Your task to perform on an android device: What's the price of the LG TV? Image 0: 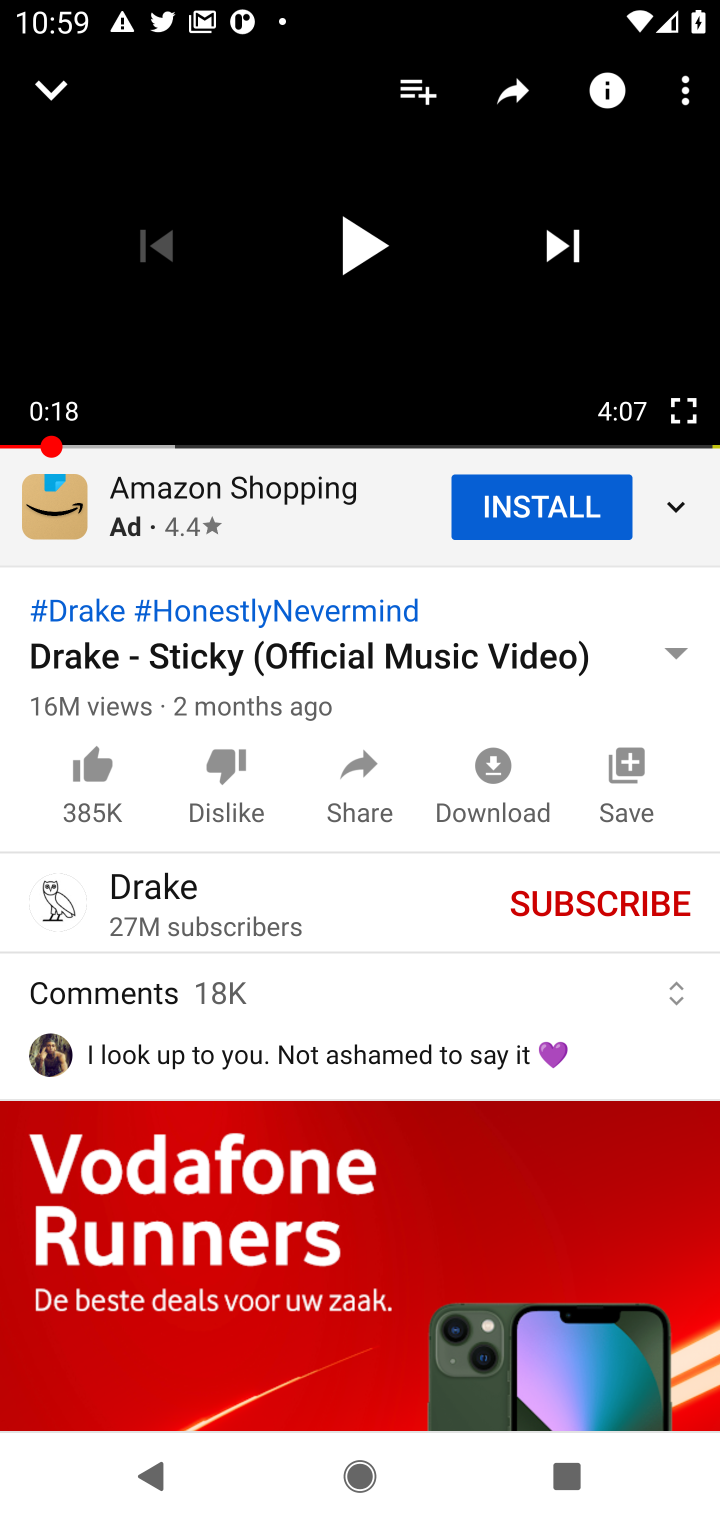
Step 0: press home button
Your task to perform on an android device: What's the price of the LG TV? Image 1: 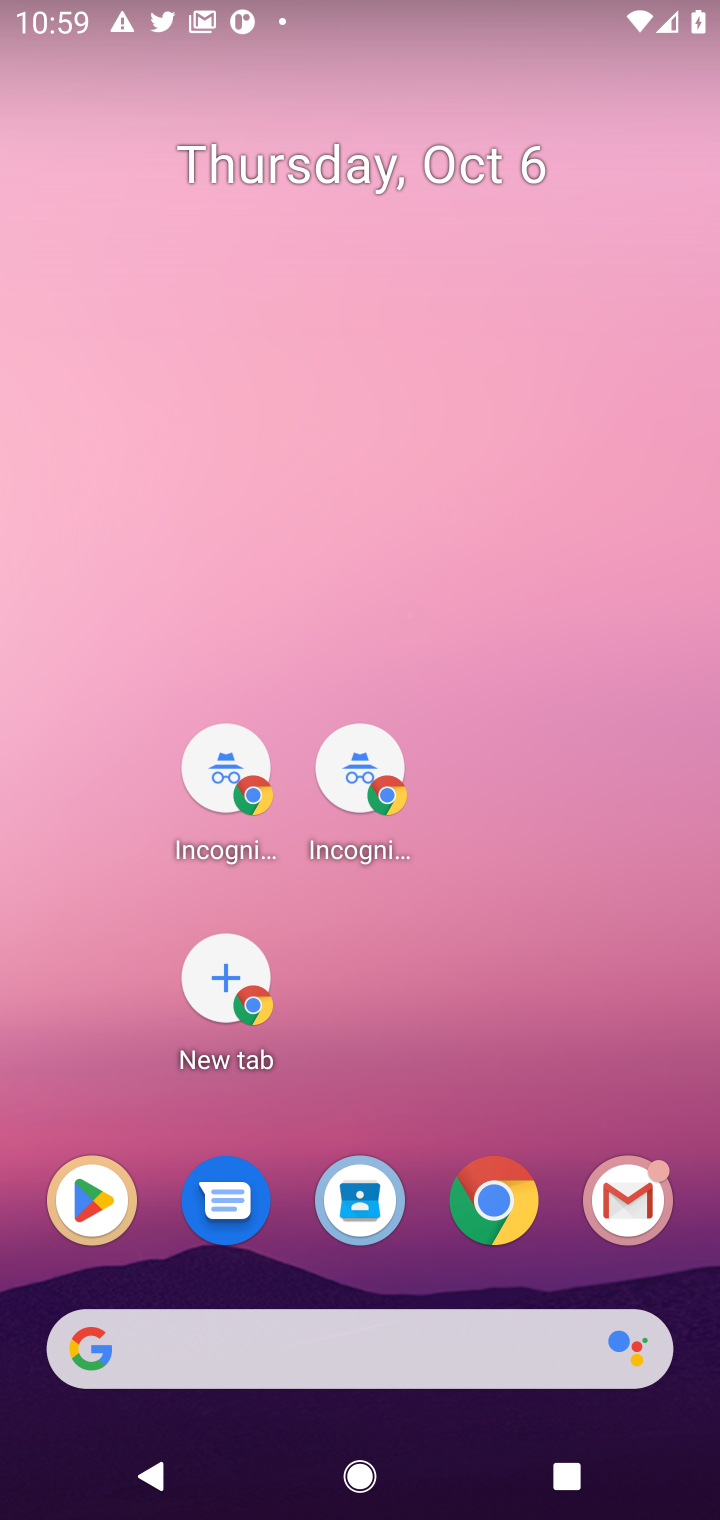
Step 1: click (478, 1202)
Your task to perform on an android device: What's the price of the LG TV? Image 2: 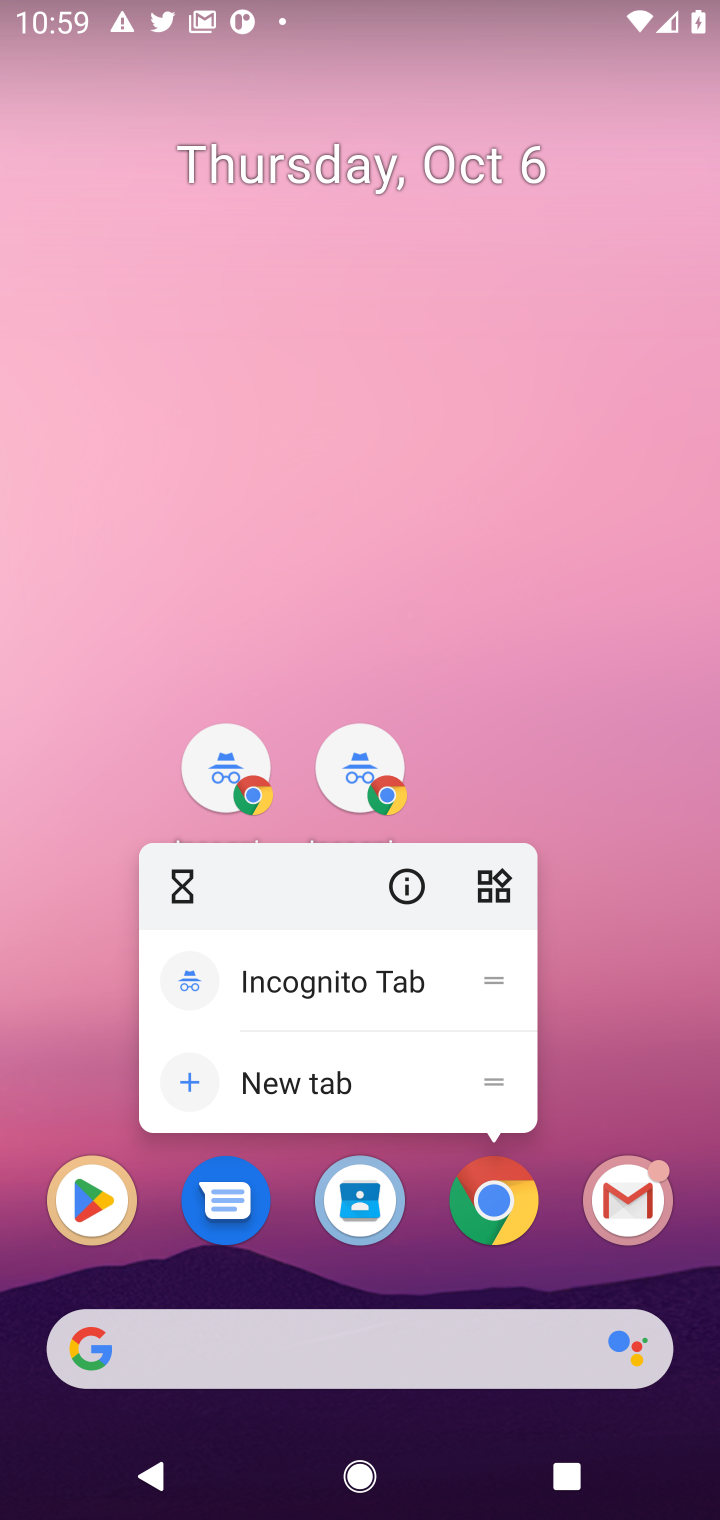
Step 2: press home button
Your task to perform on an android device: What's the price of the LG TV? Image 3: 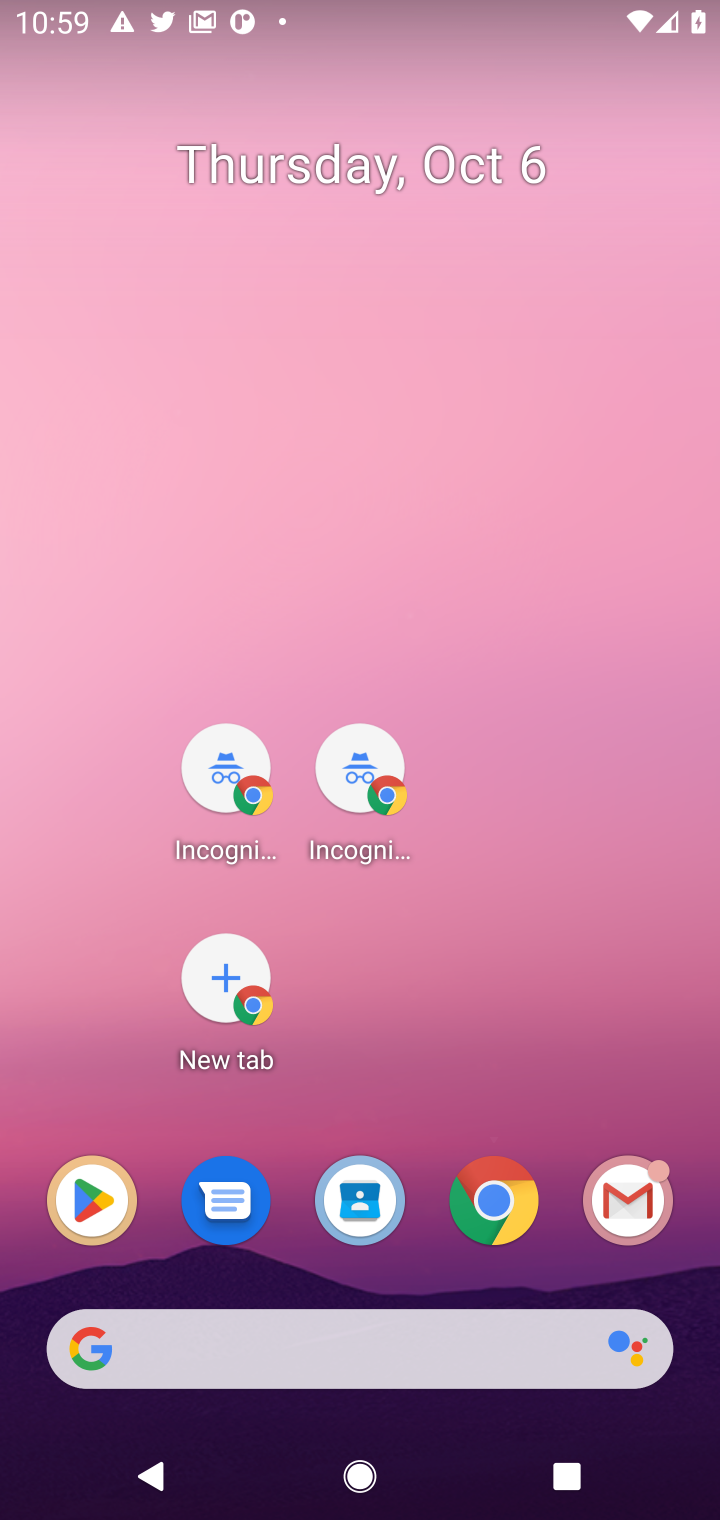
Step 3: press back button
Your task to perform on an android device: What's the price of the LG TV? Image 4: 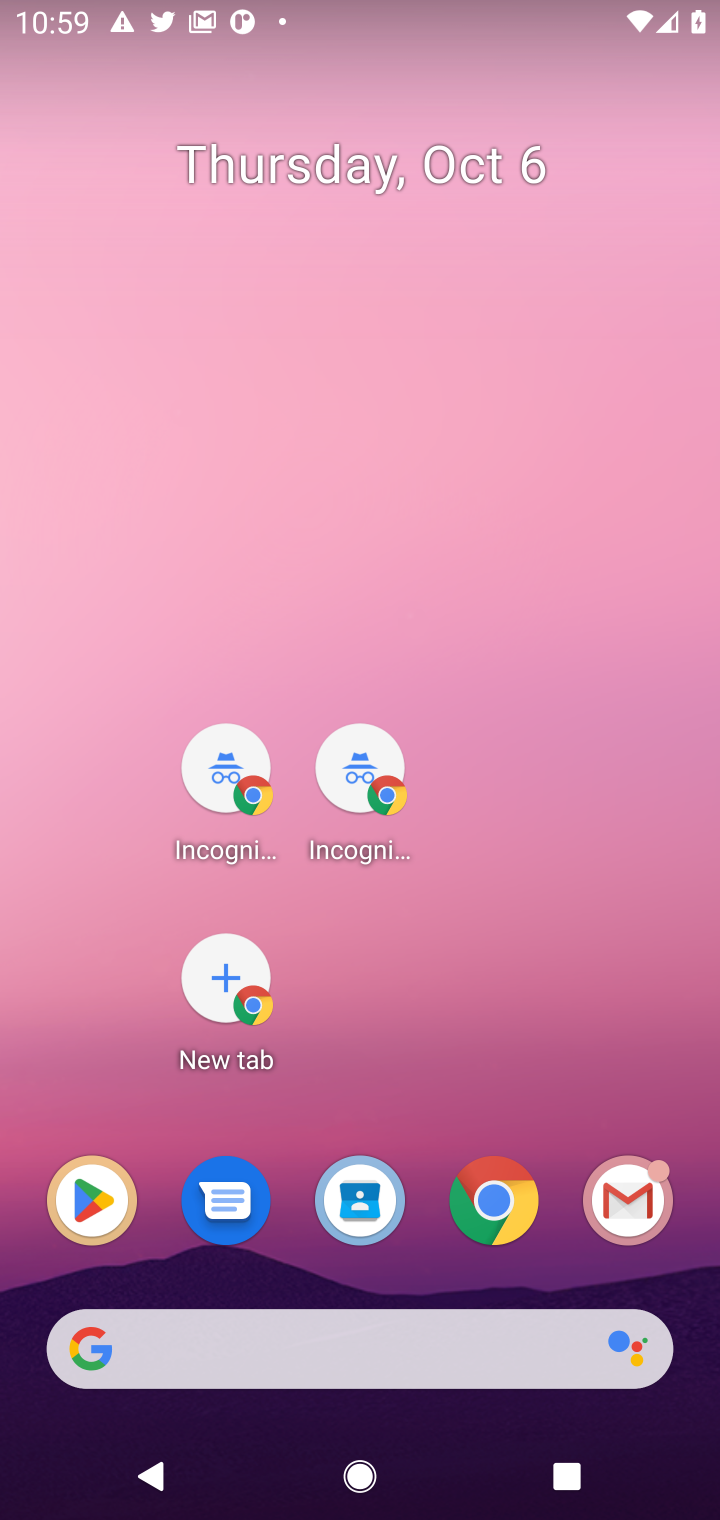
Step 4: press back button
Your task to perform on an android device: What's the price of the LG TV? Image 5: 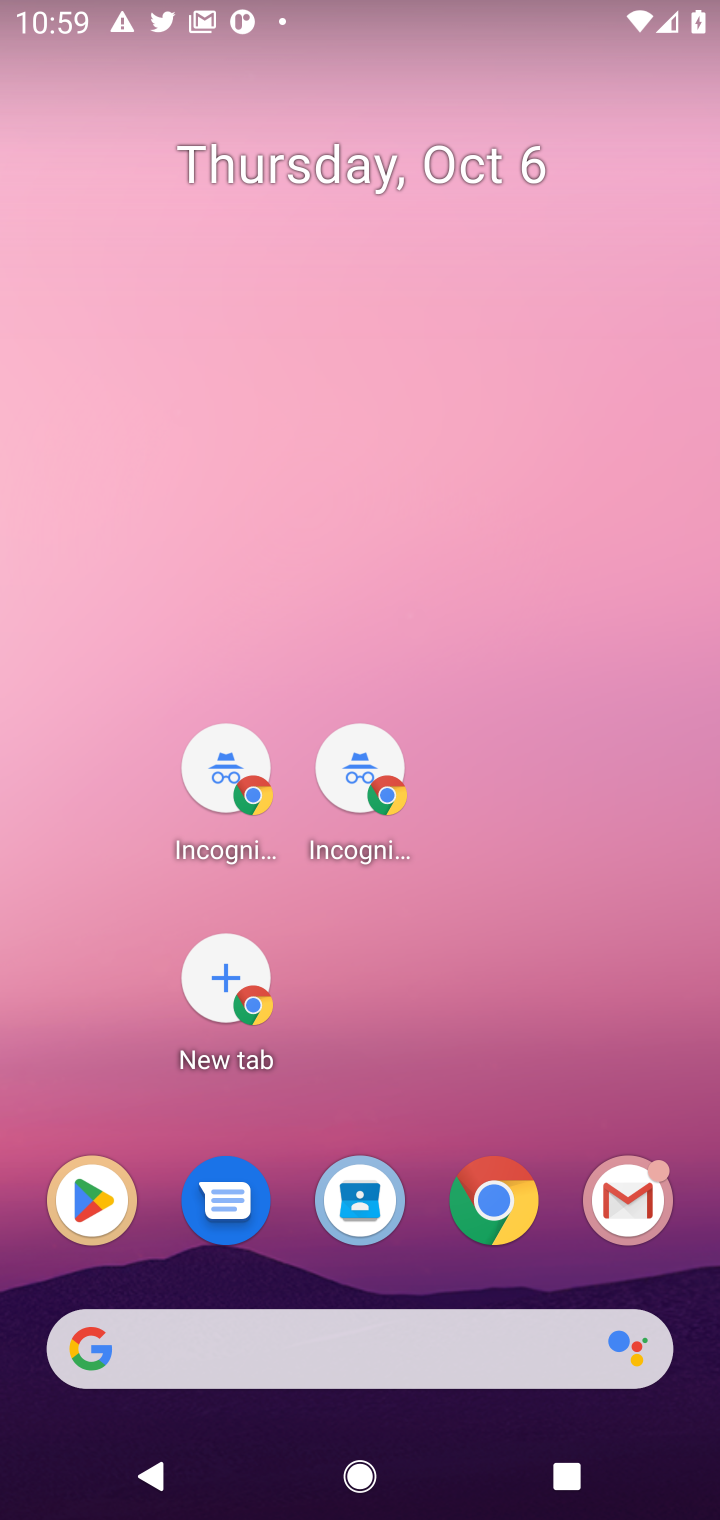
Step 5: click (483, 1228)
Your task to perform on an android device: What's the price of the LG TV? Image 6: 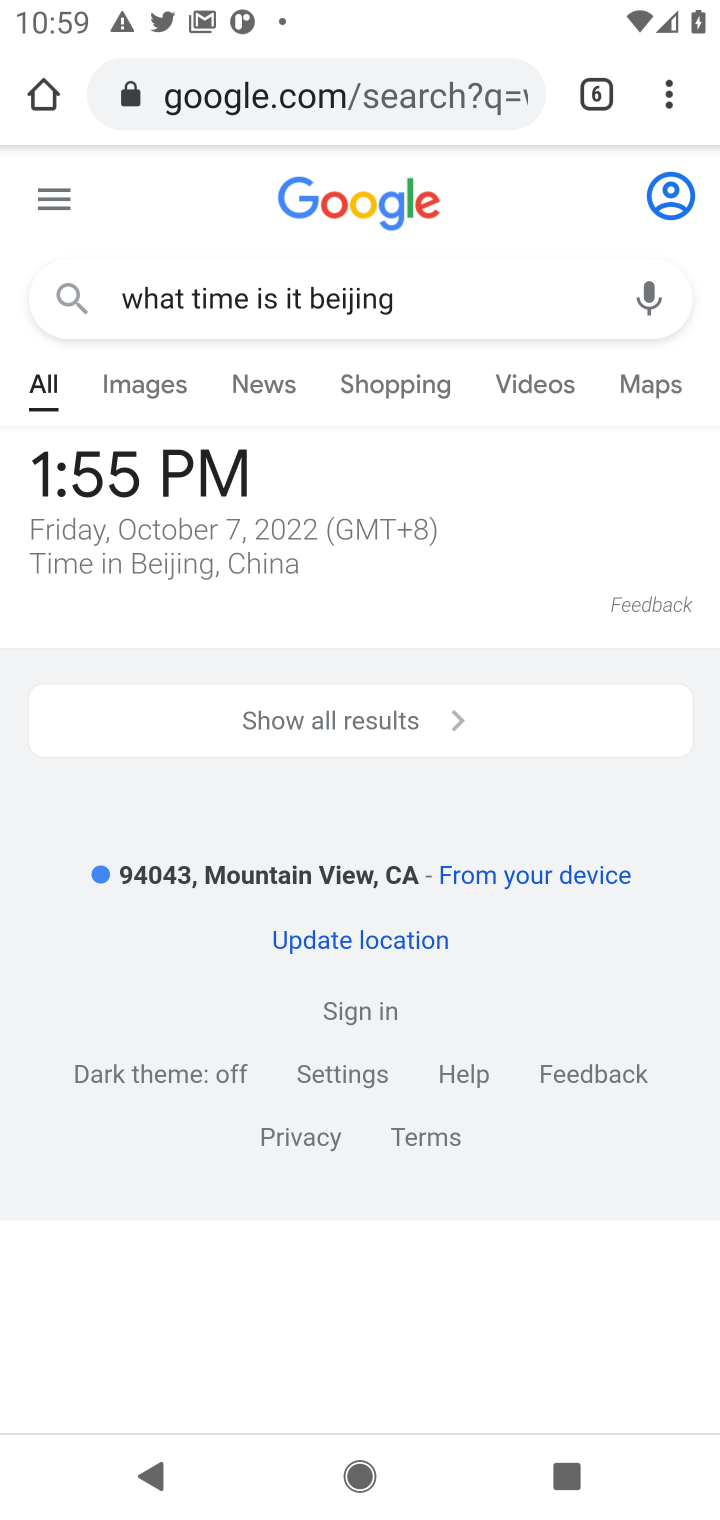
Step 6: click (353, 86)
Your task to perform on an android device: What's the price of the LG TV? Image 7: 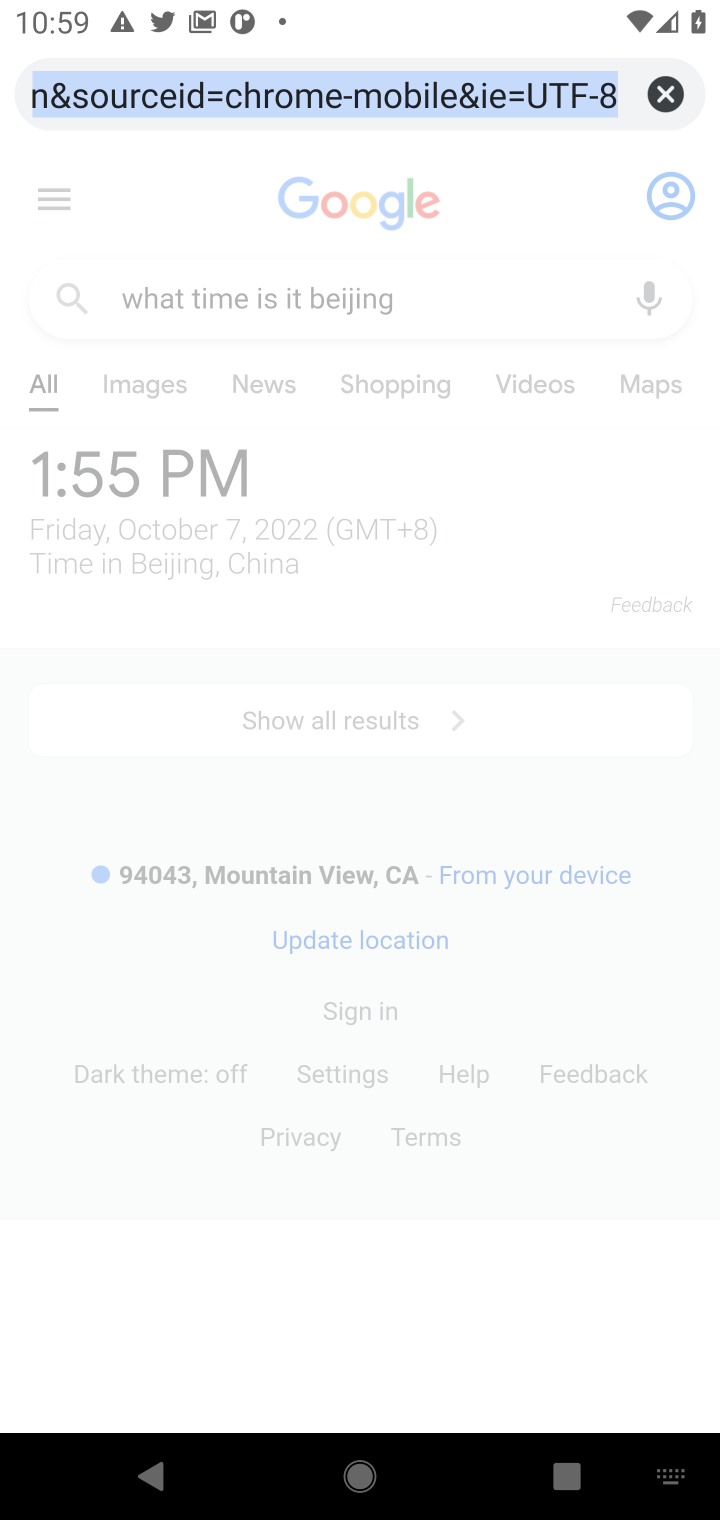
Step 7: click (657, 92)
Your task to perform on an android device: What's the price of the LG TV? Image 8: 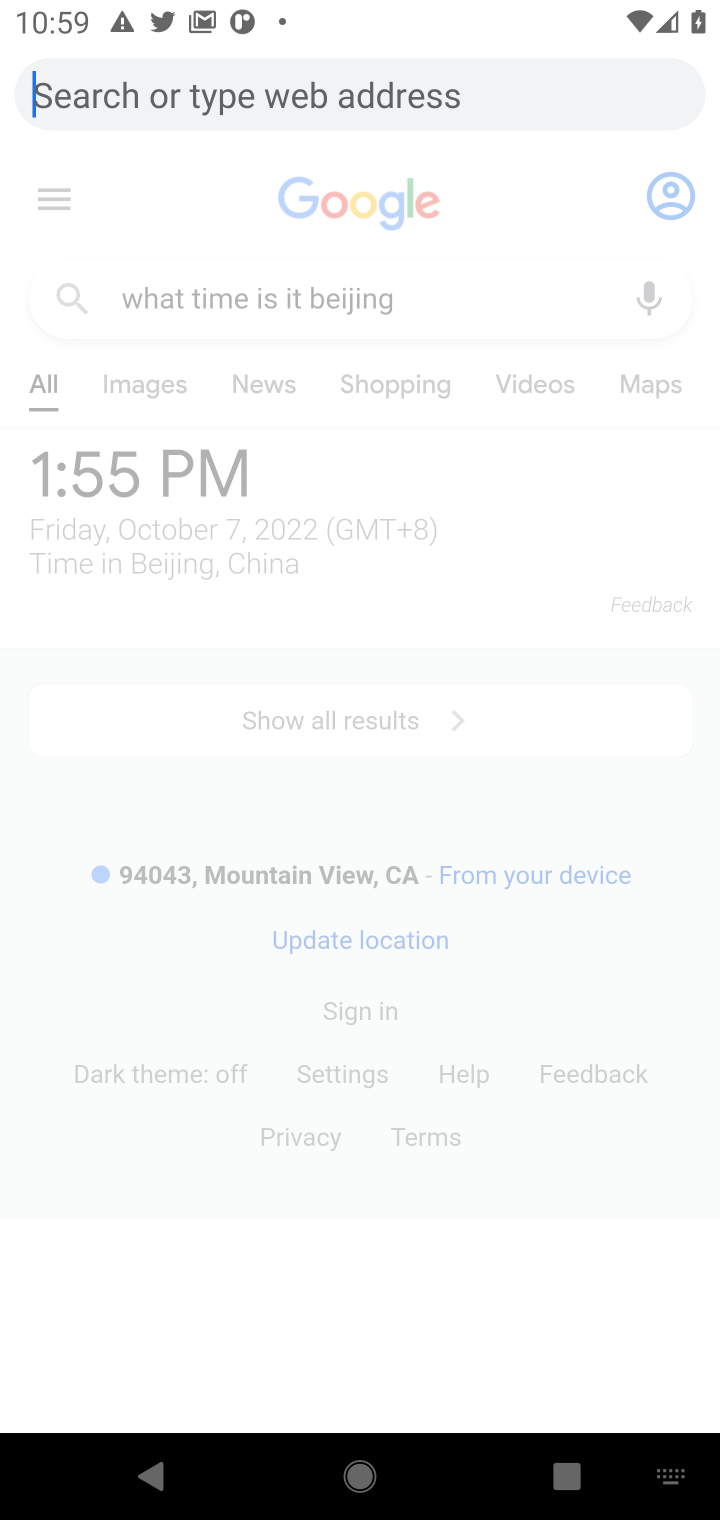
Step 8: type "price of the "
Your task to perform on an android device: What's the price of the LG TV? Image 9: 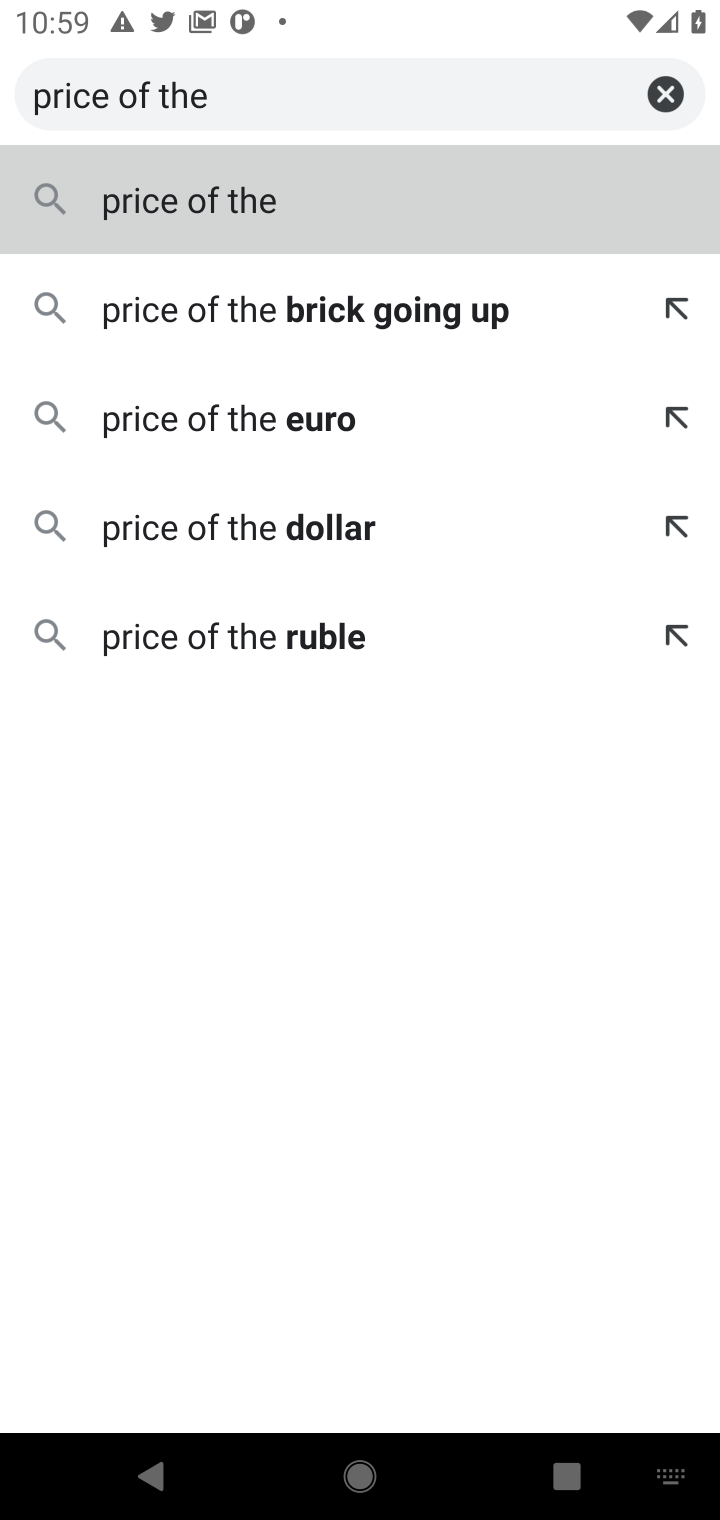
Step 9: type "lg tv"
Your task to perform on an android device: What's the price of the LG TV? Image 10: 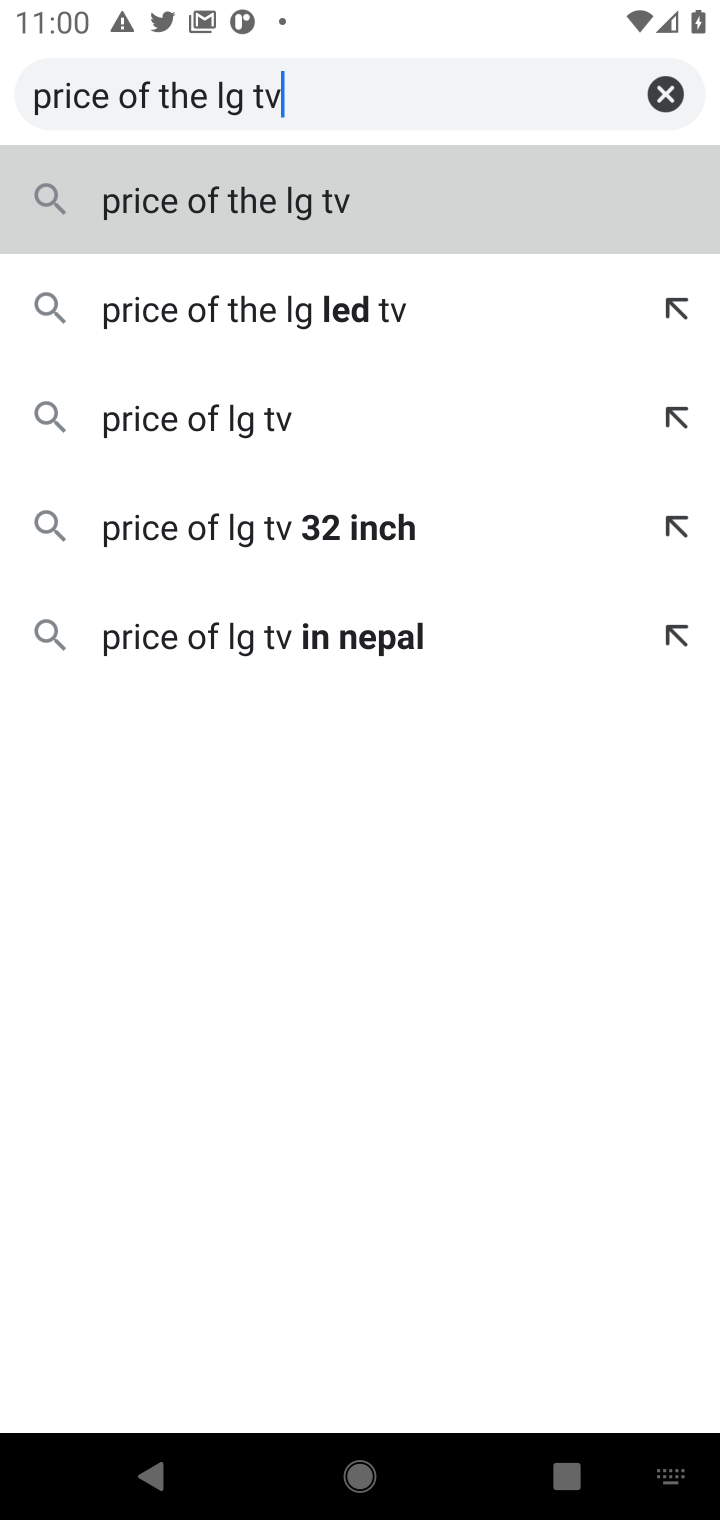
Step 10: click (343, 230)
Your task to perform on an android device: What's the price of the LG TV? Image 11: 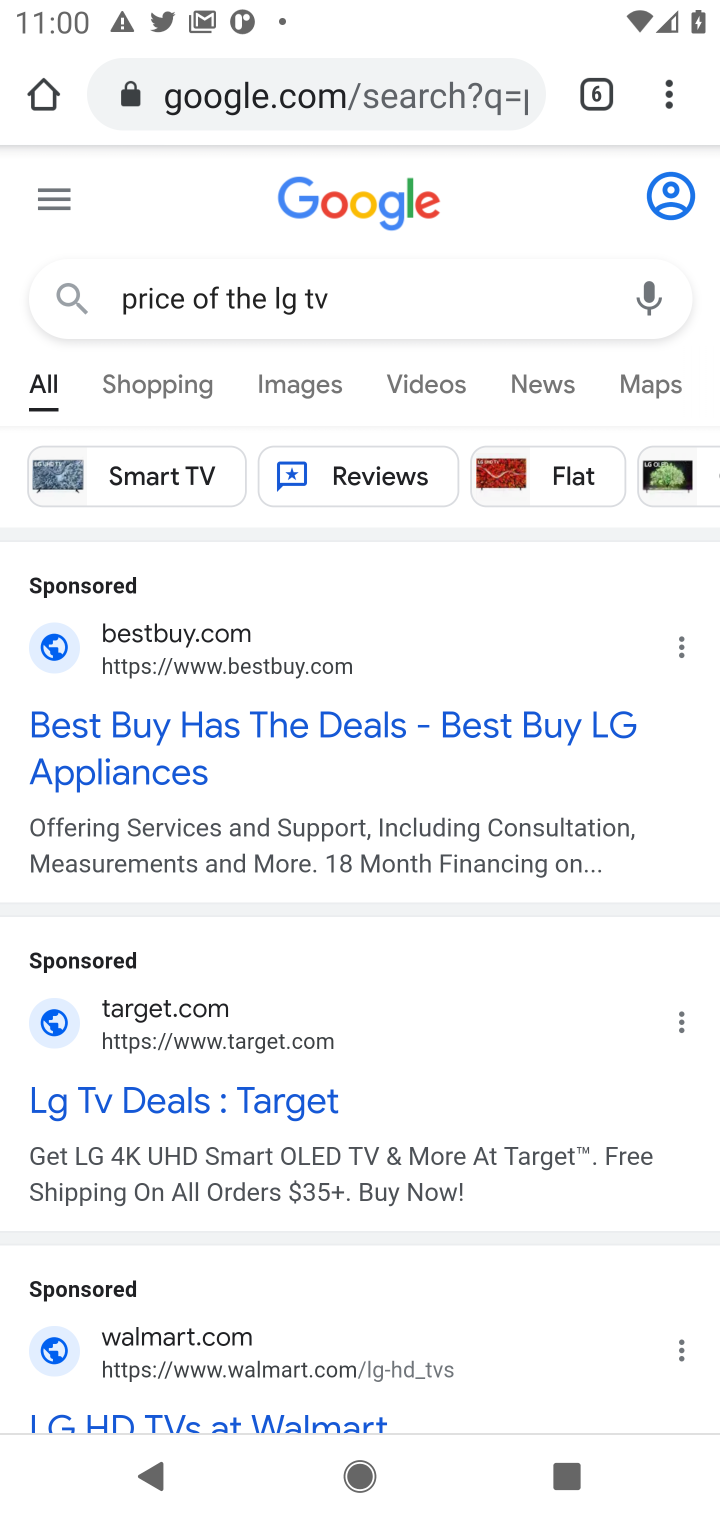
Step 11: drag from (352, 1167) to (393, 574)
Your task to perform on an android device: What's the price of the LG TV? Image 12: 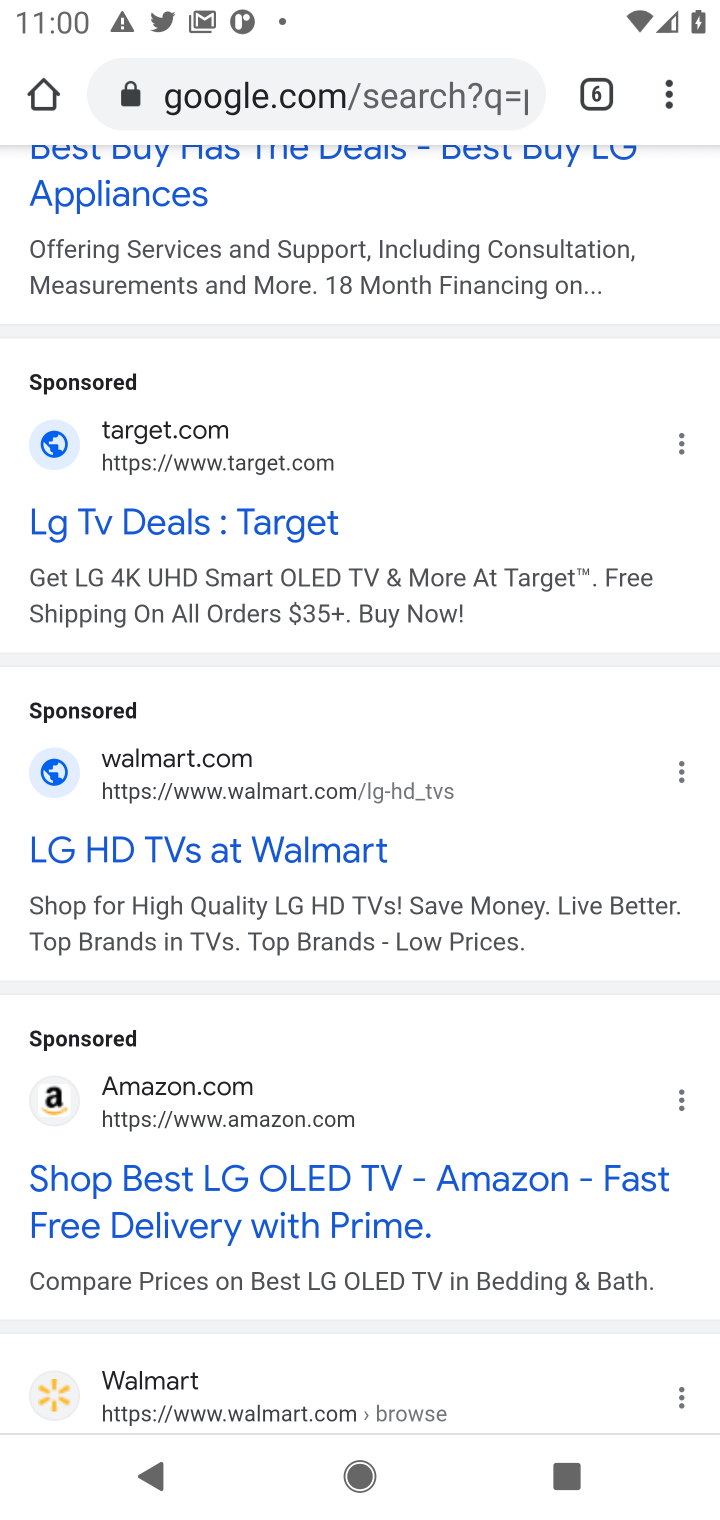
Step 12: click (111, 855)
Your task to perform on an android device: What's the price of the LG TV? Image 13: 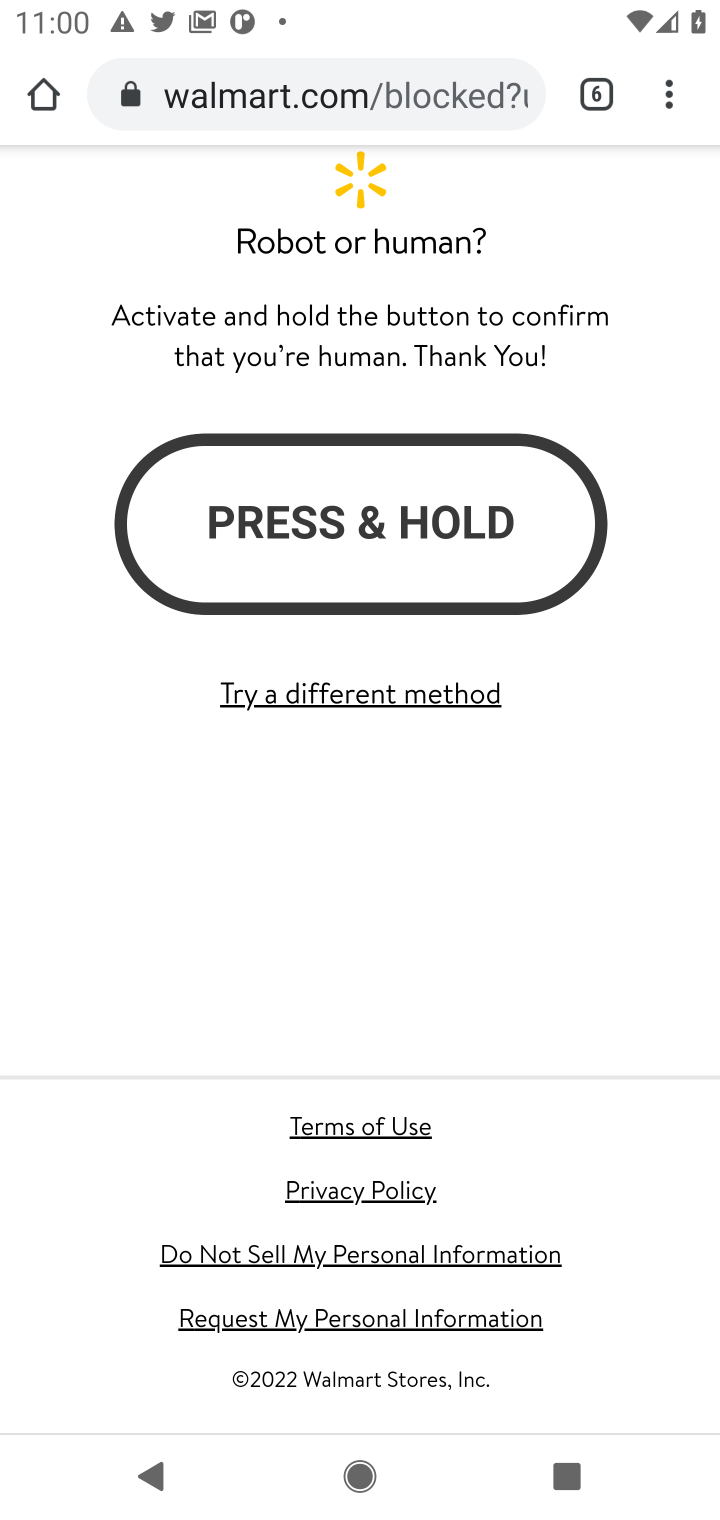
Step 13: drag from (497, 763) to (499, 1021)
Your task to perform on an android device: What's the price of the LG TV? Image 14: 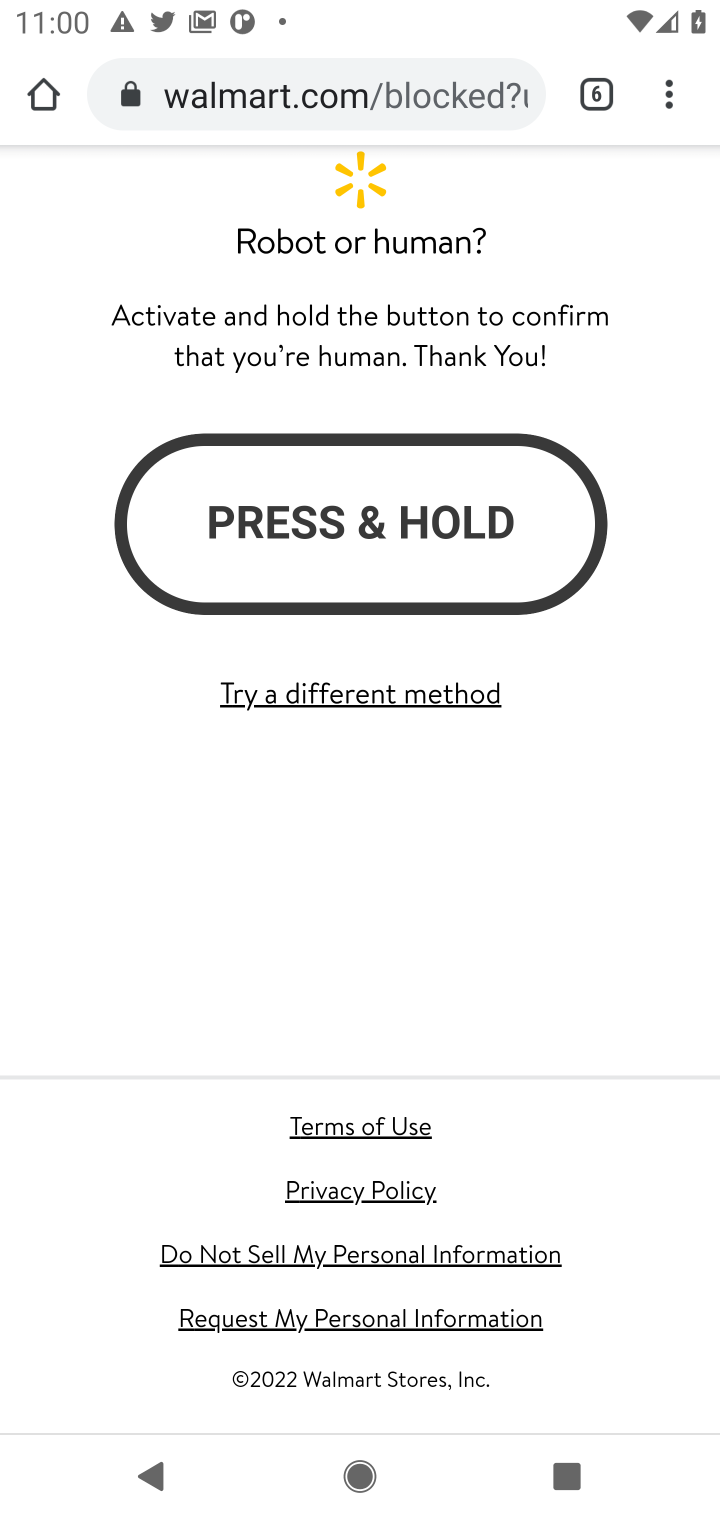
Step 14: drag from (469, 985) to (478, 496)
Your task to perform on an android device: What's the price of the LG TV? Image 15: 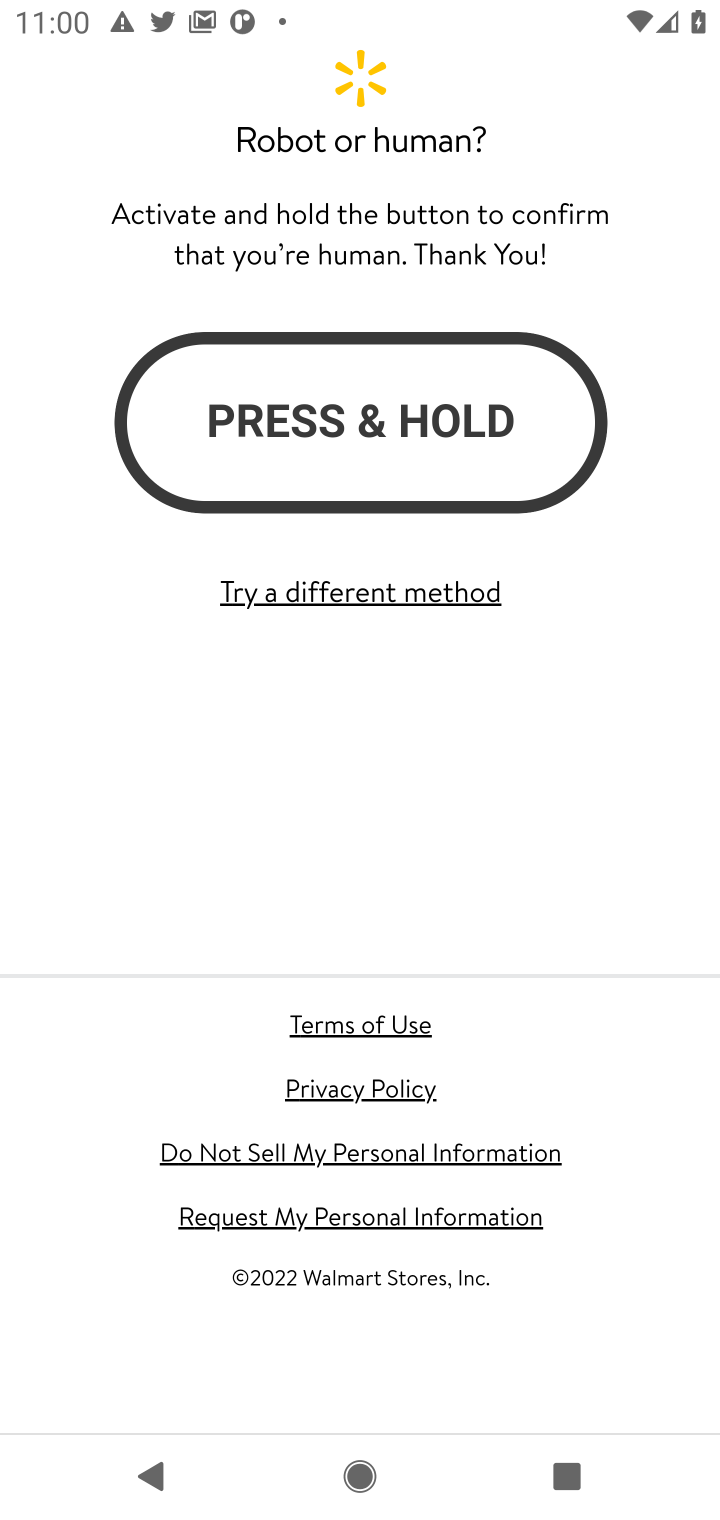
Step 15: press back button
Your task to perform on an android device: What's the price of the LG TV? Image 16: 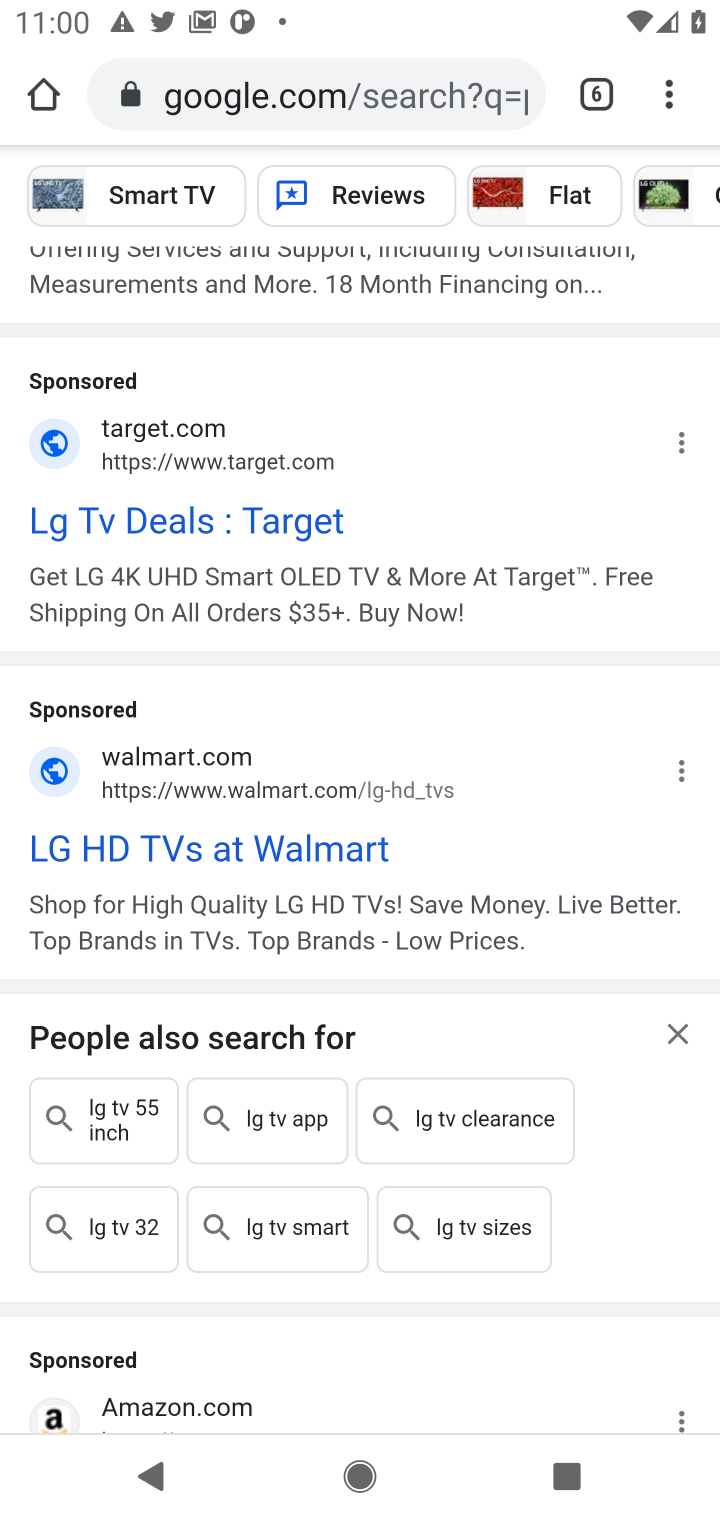
Step 16: drag from (551, 688) to (574, 1089)
Your task to perform on an android device: What's the price of the LG TV? Image 17: 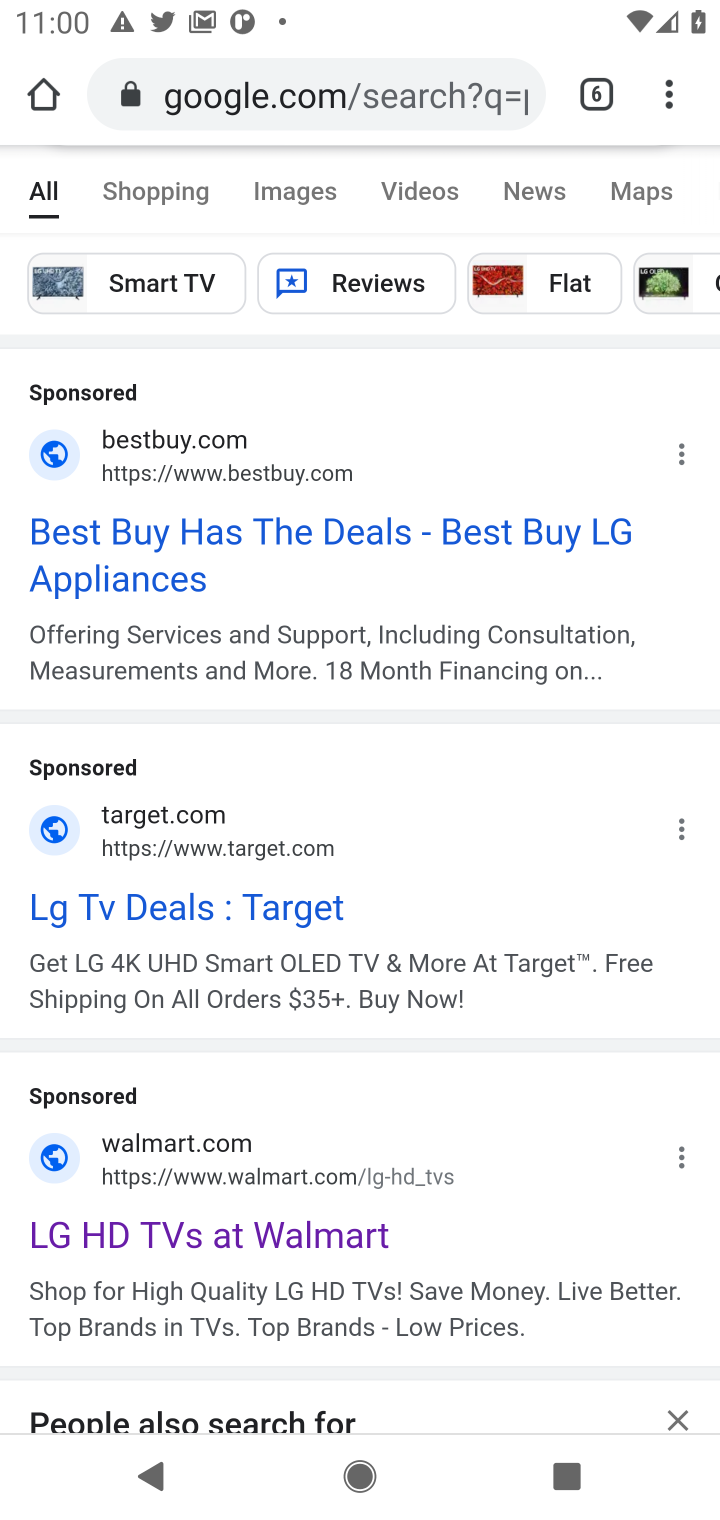
Step 17: click (169, 906)
Your task to perform on an android device: What's the price of the LG TV? Image 18: 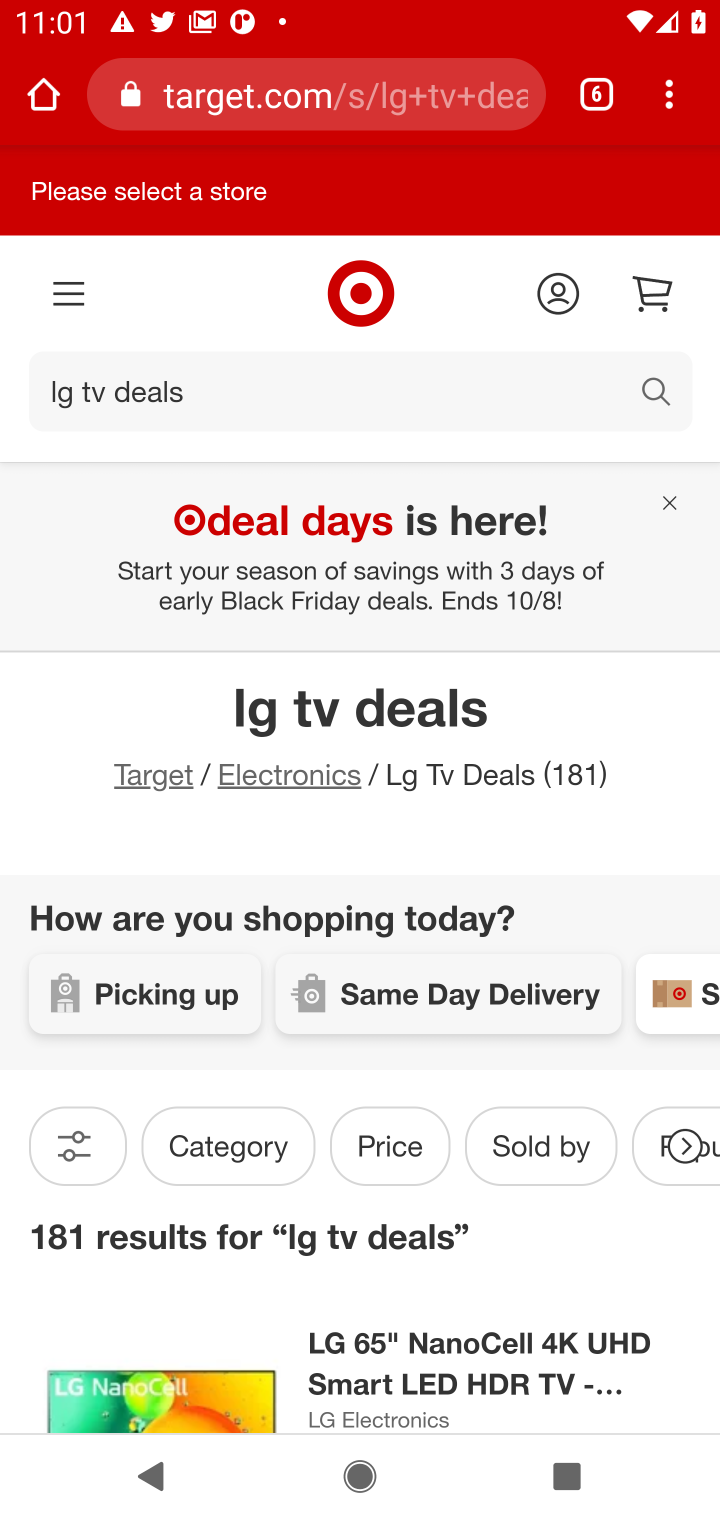
Step 18: click (368, 1139)
Your task to perform on an android device: What's the price of the LG TV? Image 19: 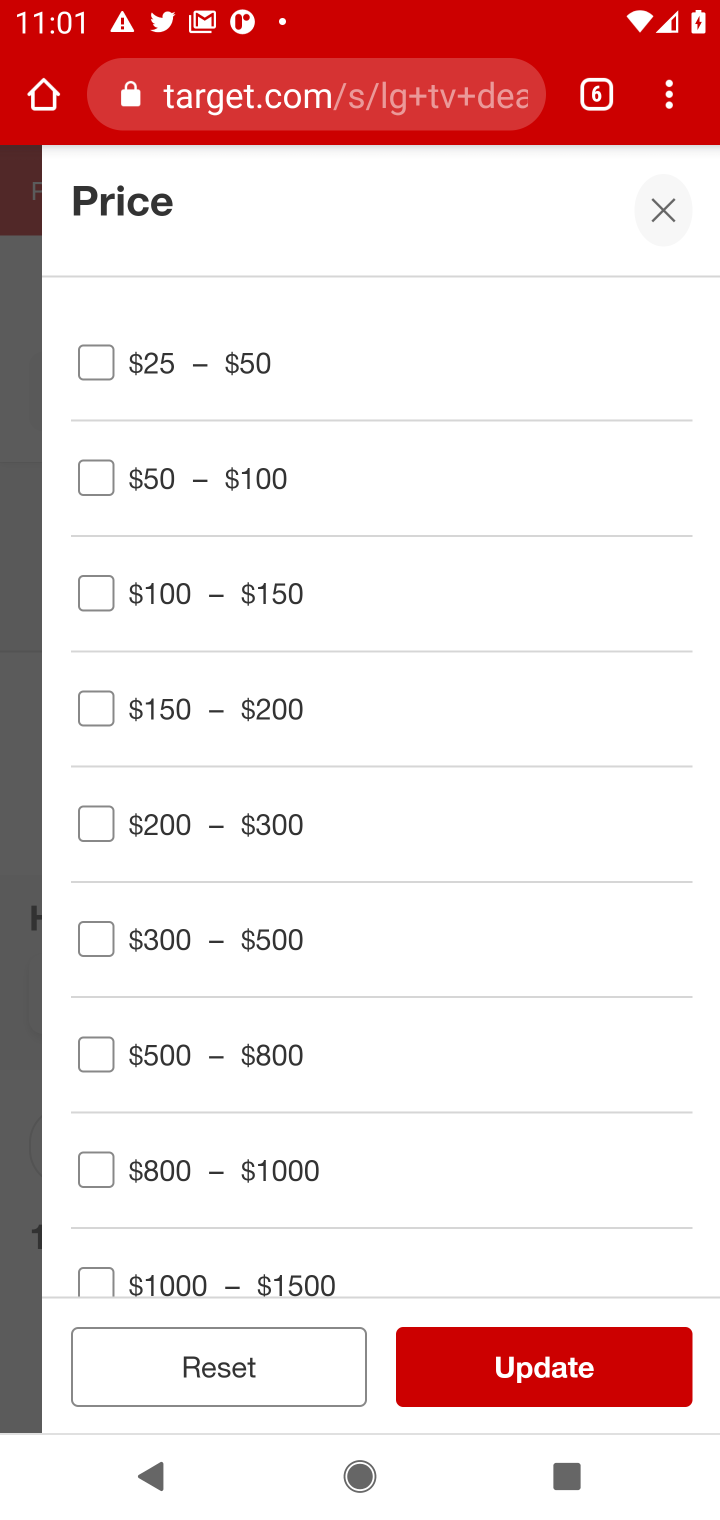
Step 19: click (108, 588)
Your task to perform on an android device: What's the price of the LG TV? Image 20: 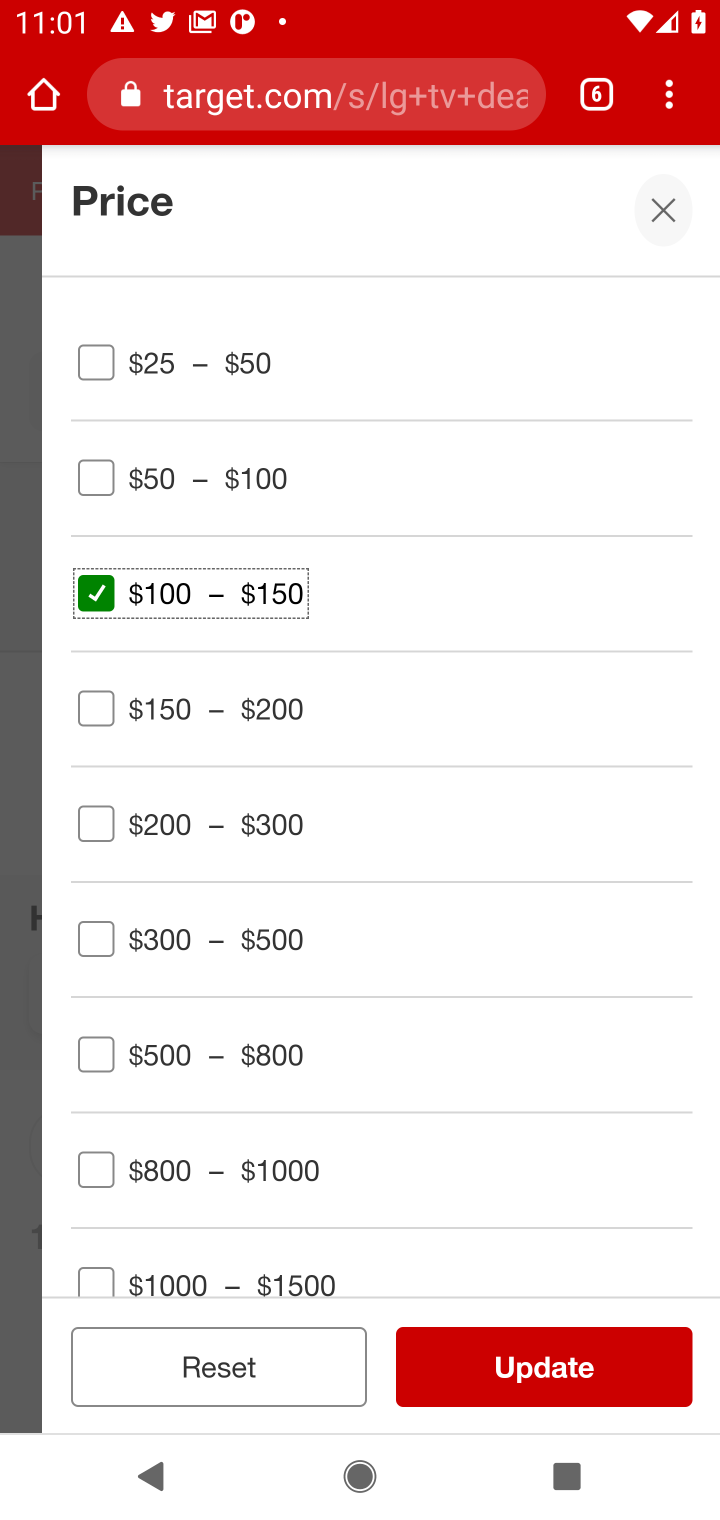
Step 20: click (582, 1370)
Your task to perform on an android device: What's the price of the LG TV? Image 21: 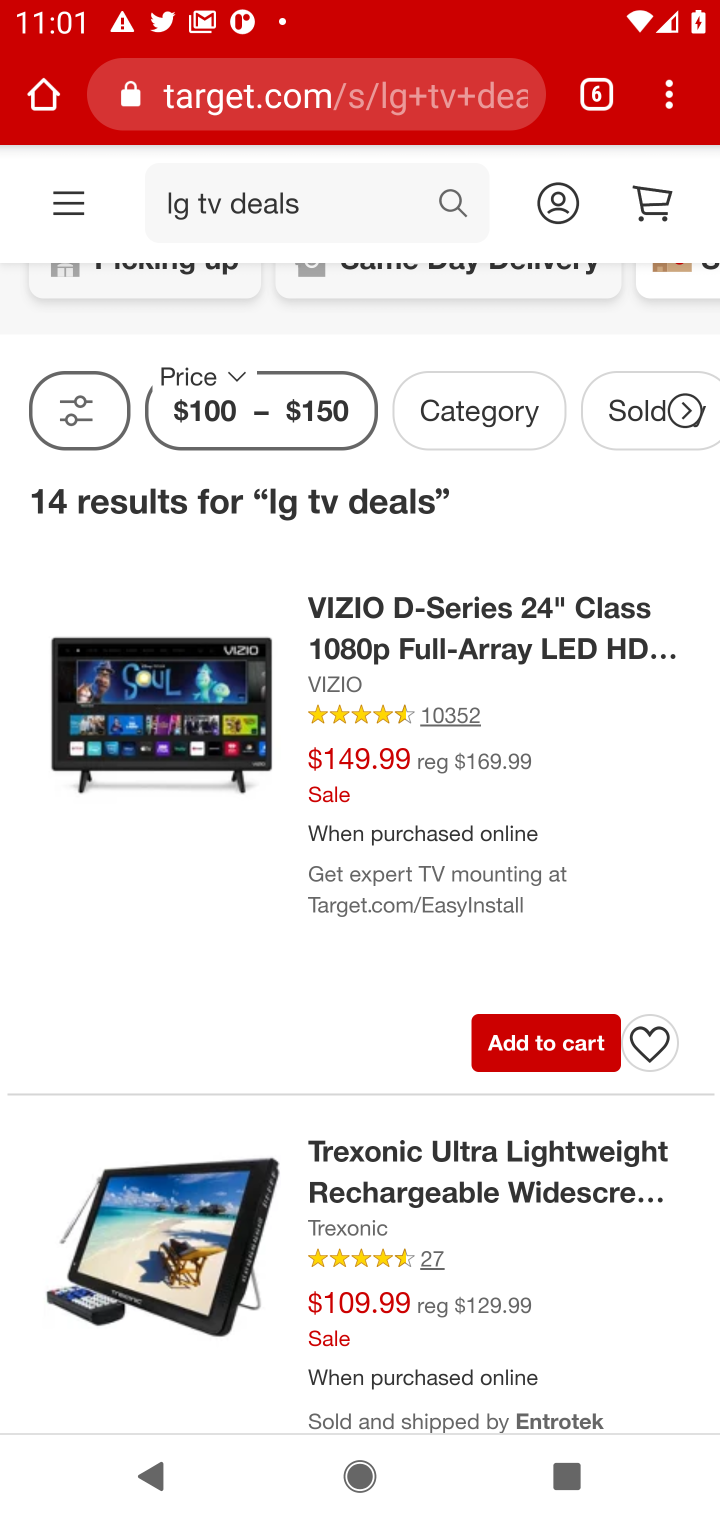
Step 21: task complete